Your task to perform on an android device: Set the phone to "Do not disturb". Image 0: 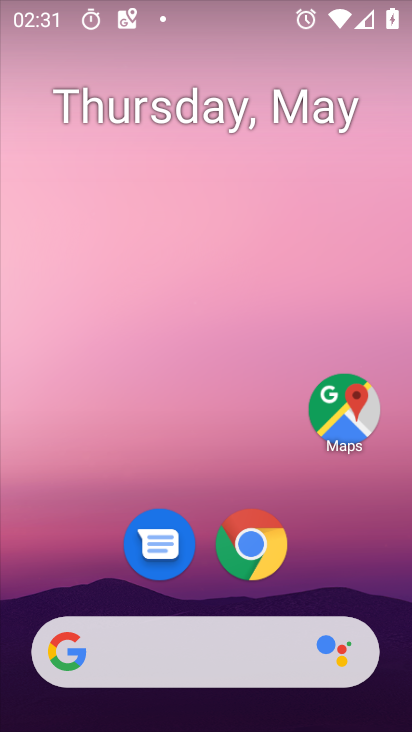
Step 0: drag from (350, 567) to (331, 285)
Your task to perform on an android device: Set the phone to "Do not disturb". Image 1: 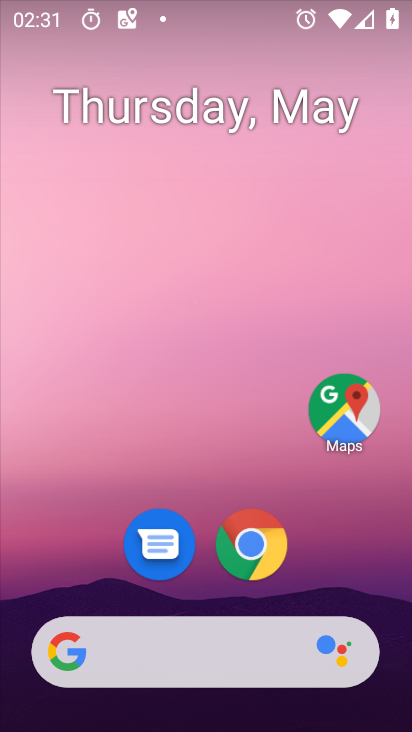
Step 1: drag from (372, 572) to (371, 209)
Your task to perform on an android device: Set the phone to "Do not disturb". Image 2: 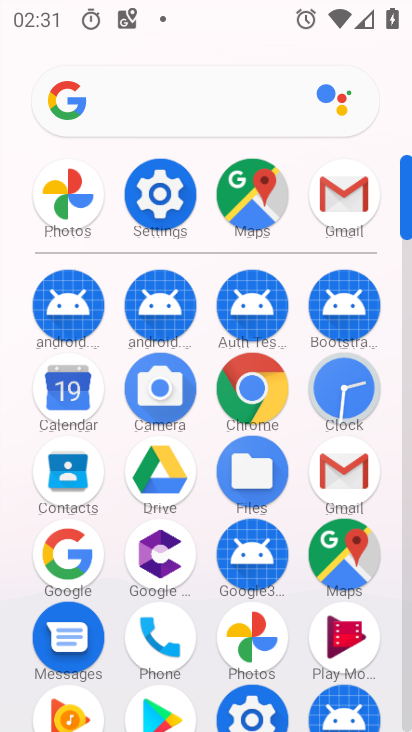
Step 2: click (179, 205)
Your task to perform on an android device: Set the phone to "Do not disturb". Image 3: 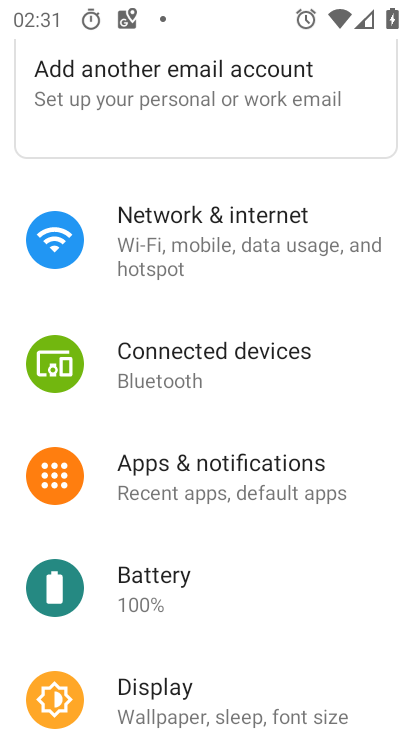
Step 3: drag from (367, 330) to (367, 536)
Your task to perform on an android device: Set the phone to "Do not disturb". Image 4: 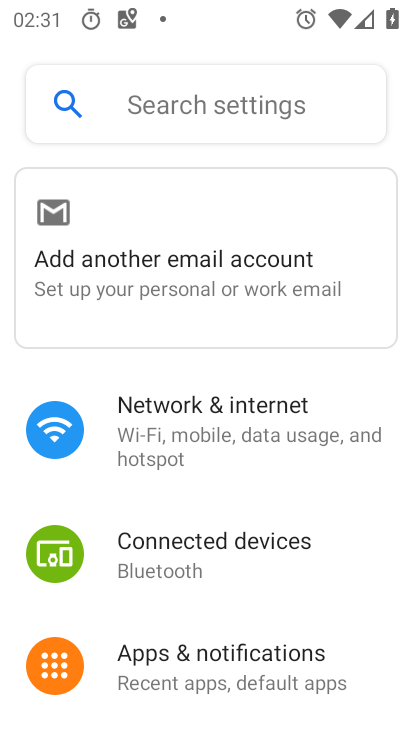
Step 4: drag from (356, 307) to (359, 535)
Your task to perform on an android device: Set the phone to "Do not disturb". Image 5: 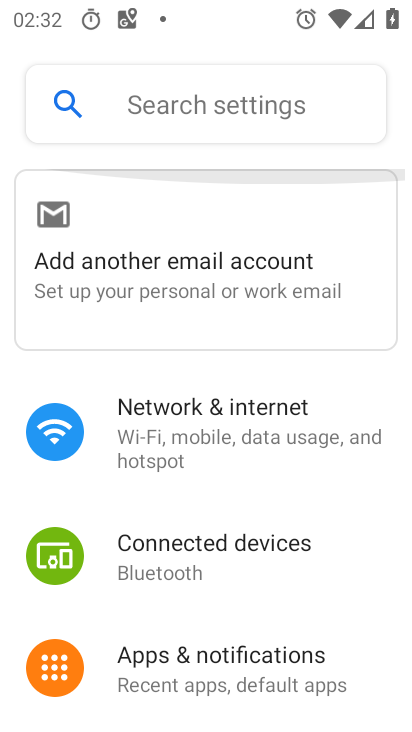
Step 5: drag from (356, 595) to (366, 381)
Your task to perform on an android device: Set the phone to "Do not disturb". Image 6: 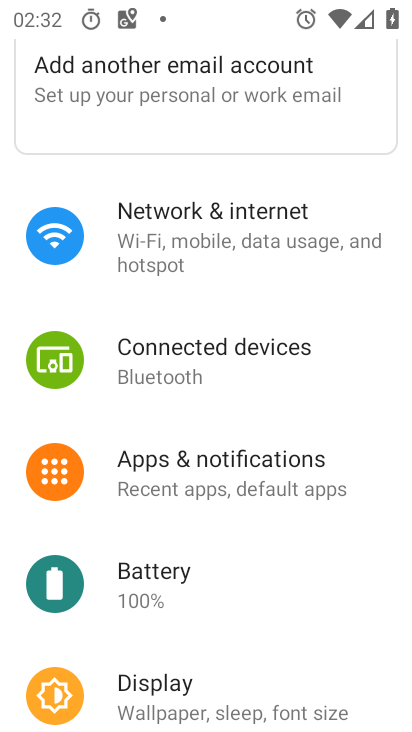
Step 6: drag from (335, 642) to (336, 517)
Your task to perform on an android device: Set the phone to "Do not disturb". Image 7: 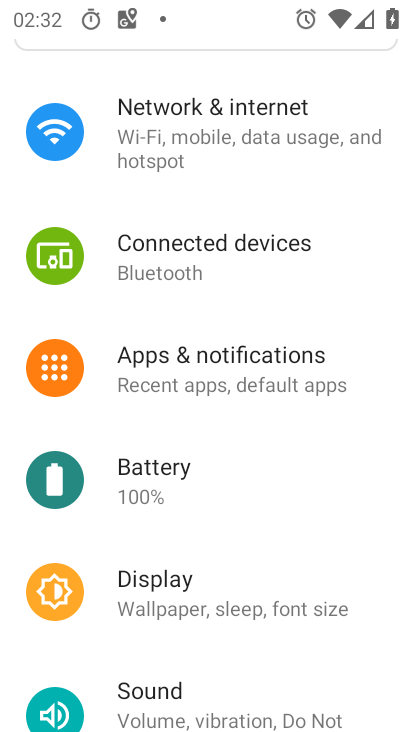
Step 7: drag from (328, 689) to (340, 518)
Your task to perform on an android device: Set the phone to "Do not disturb". Image 8: 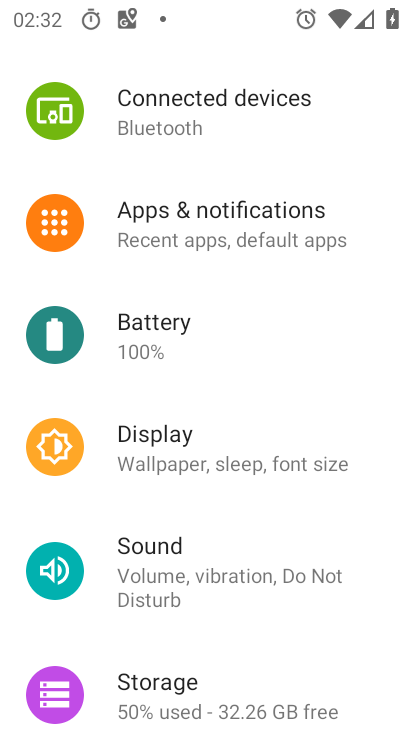
Step 8: drag from (341, 657) to (339, 510)
Your task to perform on an android device: Set the phone to "Do not disturb". Image 9: 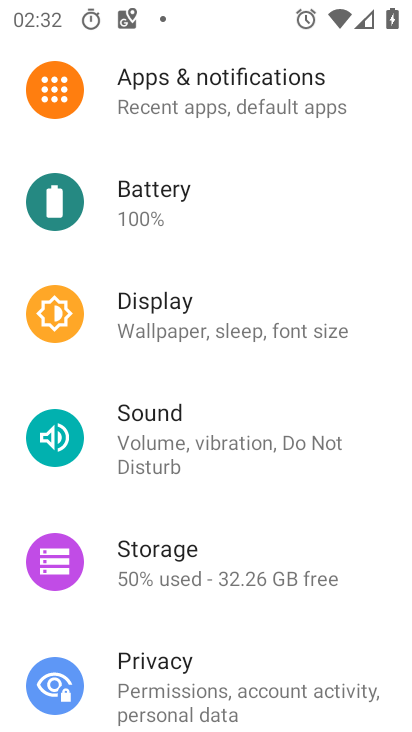
Step 9: click (288, 466)
Your task to perform on an android device: Set the phone to "Do not disturb". Image 10: 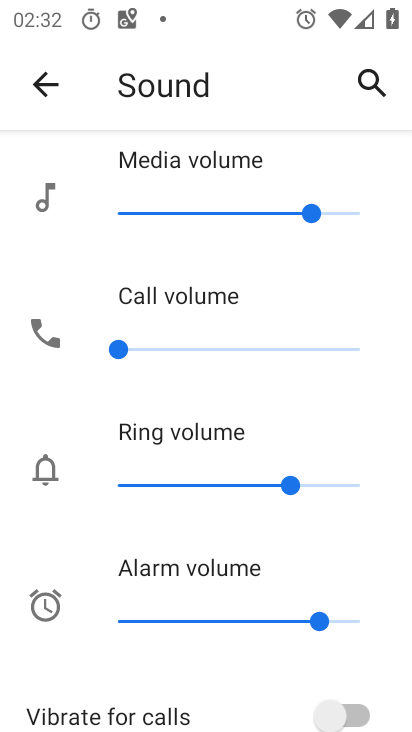
Step 10: drag from (348, 599) to (369, 482)
Your task to perform on an android device: Set the phone to "Do not disturb". Image 11: 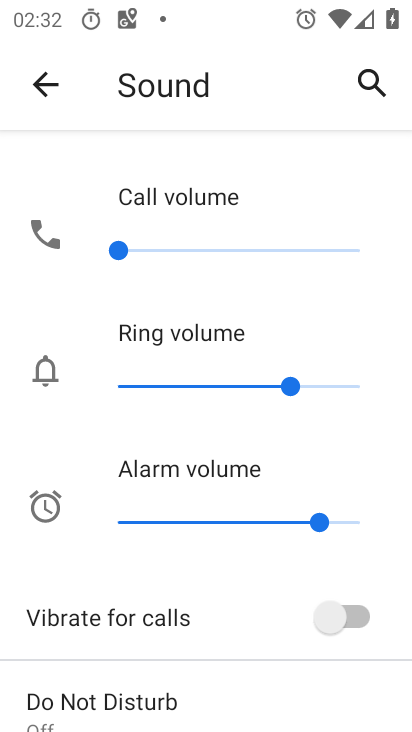
Step 11: drag from (300, 670) to (317, 557)
Your task to perform on an android device: Set the phone to "Do not disturb". Image 12: 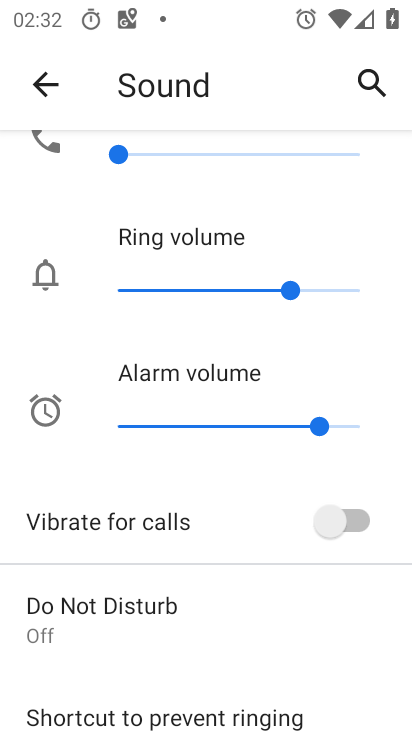
Step 12: click (189, 627)
Your task to perform on an android device: Set the phone to "Do not disturb". Image 13: 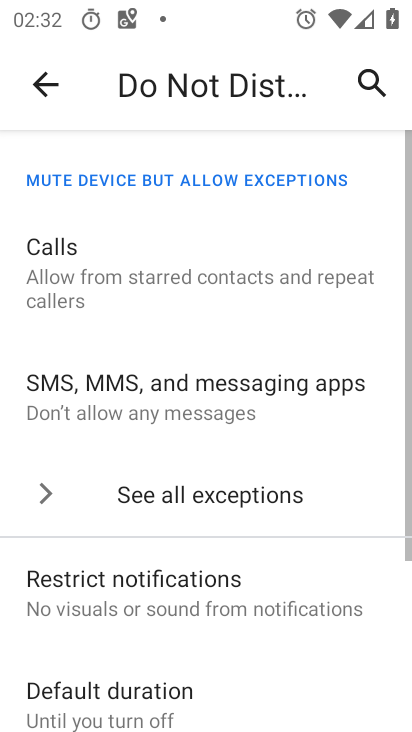
Step 13: drag from (271, 684) to (294, 540)
Your task to perform on an android device: Set the phone to "Do not disturb". Image 14: 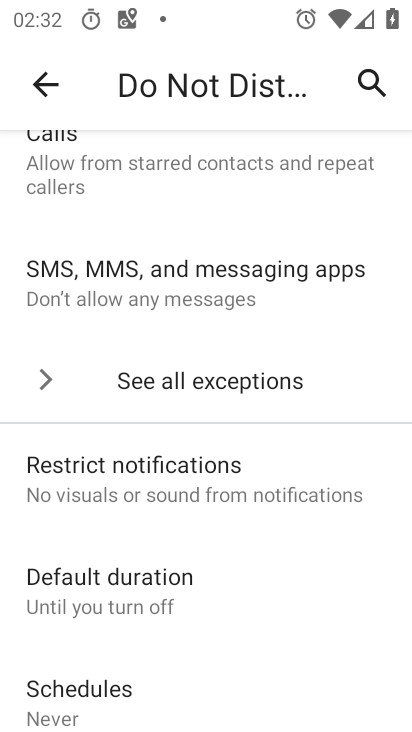
Step 14: drag from (299, 661) to (305, 540)
Your task to perform on an android device: Set the phone to "Do not disturb". Image 15: 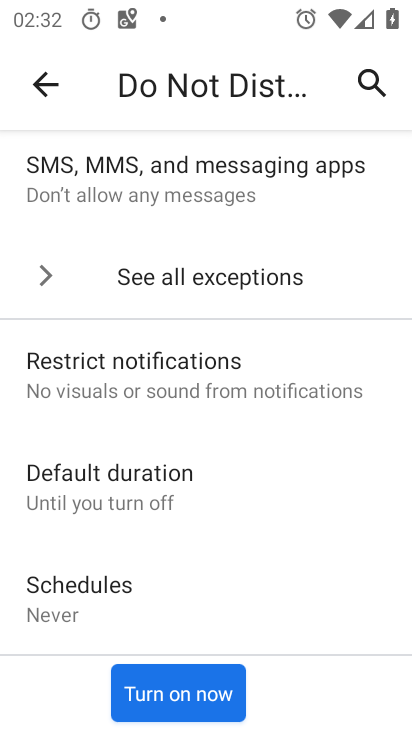
Step 15: click (204, 698)
Your task to perform on an android device: Set the phone to "Do not disturb". Image 16: 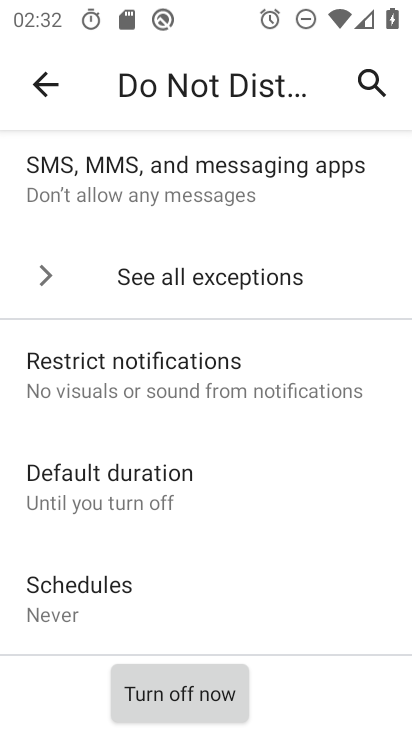
Step 16: task complete